Your task to perform on an android device: turn off translation in the chrome app Image 0: 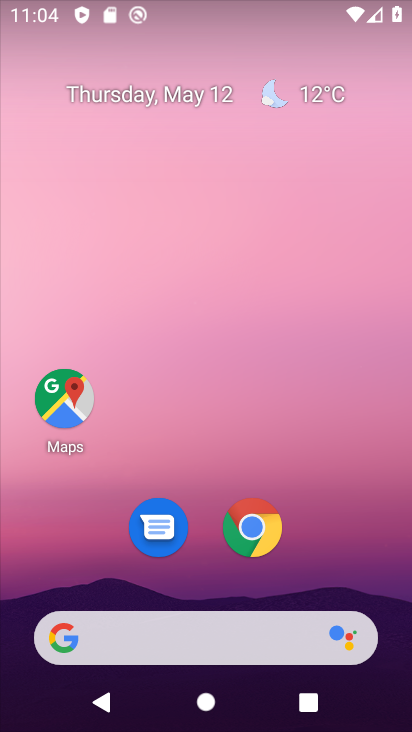
Step 0: click (244, 532)
Your task to perform on an android device: turn off translation in the chrome app Image 1: 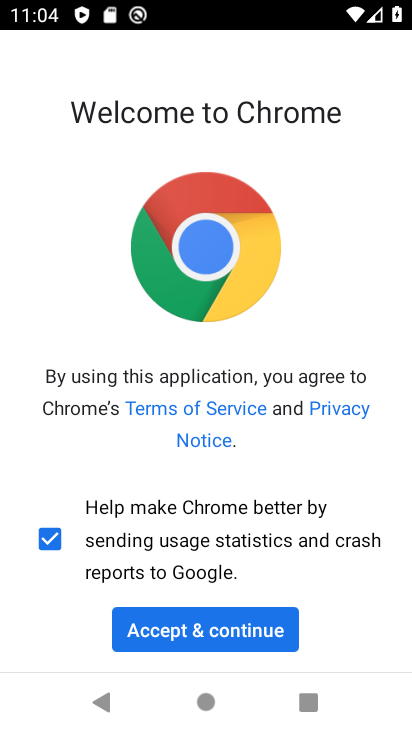
Step 1: click (163, 626)
Your task to perform on an android device: turn off translation in the chrome app Image 2: 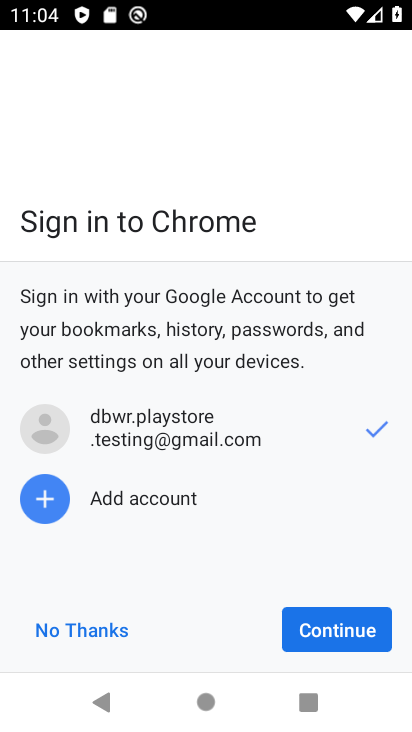
Step 2: click (51, 632)
Your task to perform on an android device: turn off translation in the chrome app Image 3: 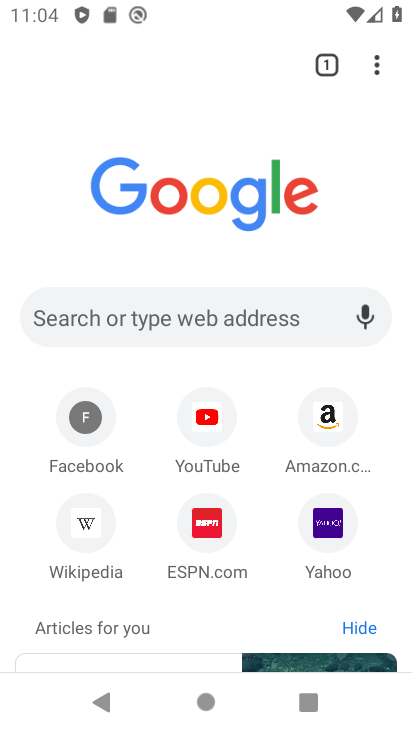
Step 3: click (367, 60)
Your task to perform on an android device: turn off translation in the chrome app Image 4: 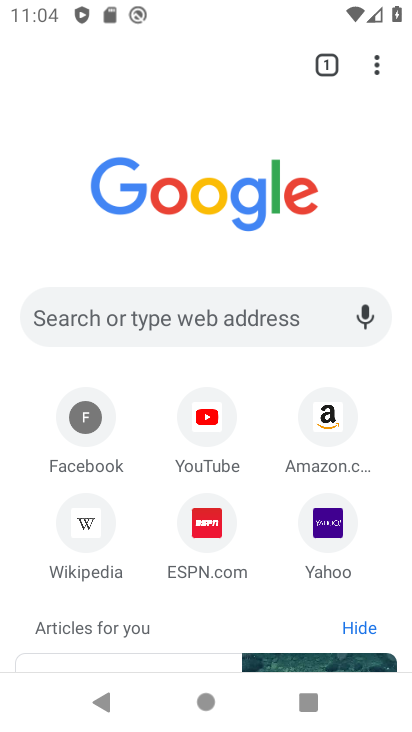
Step 4: click (376, 63)
Your task to perform on an android device: turn off translation in the chrome app Image 5: 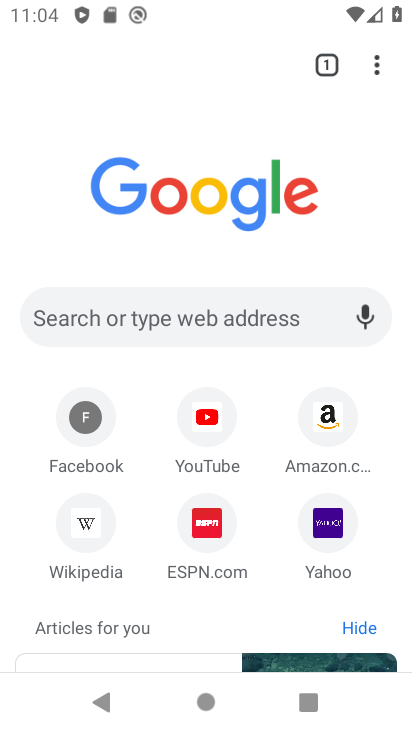
Step 5: click (368, 71)
Your task to perform on an android device: turn off translation in the chrome app Image 6: 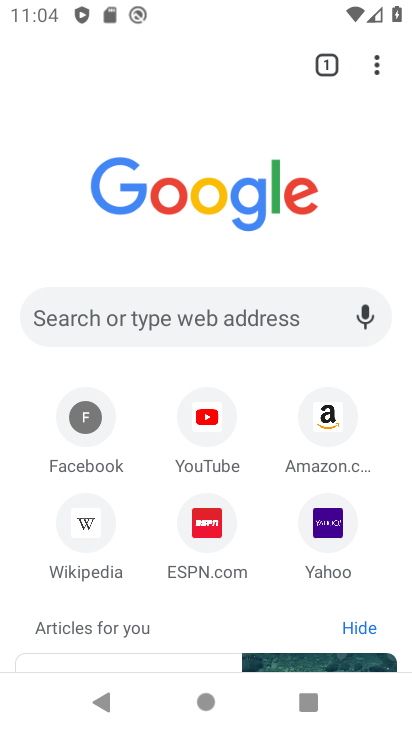
Step 6: click (378, 60)
Your task to perform on an android device: turn off translation in the chrome app Image 7: 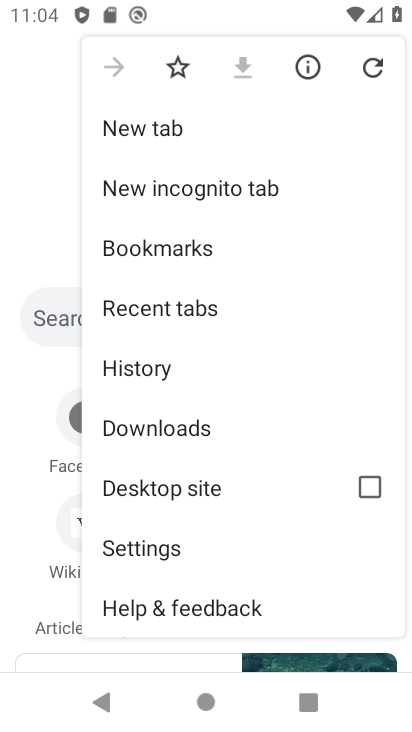
Step 7: click (166, 540)
Your task to perform on an android device: turn off translation in the chrome app Image 8: 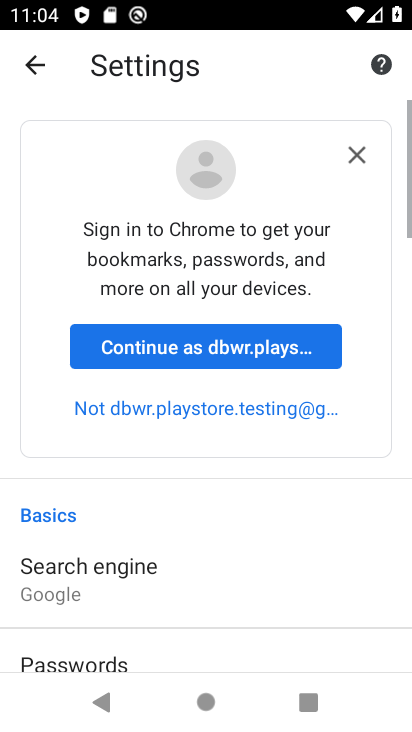
Step 8: drag from (10, 607) to (341, 144)
Your task to perform on an android device: turn off translation in the chrome app Image 9: 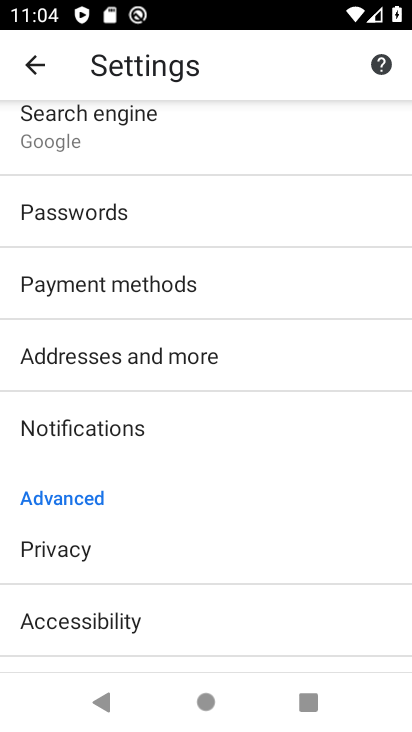
Step 9: drag from (16, 654) to (281, 257)
Your task to perform on an android device: turn off translation in the chrome app Image 10: 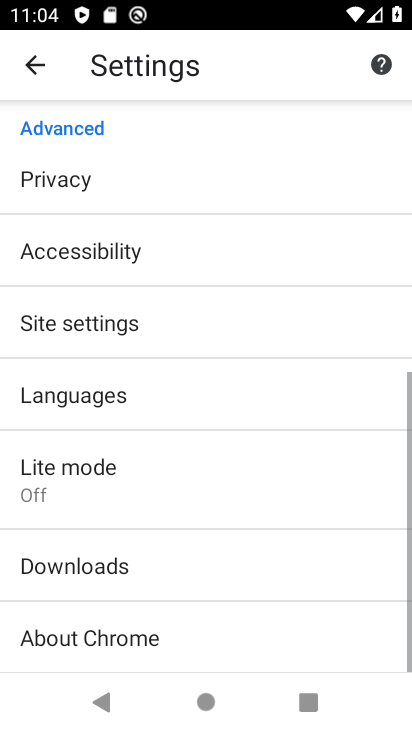
Step 10: click (118, 317)
Your task to perform on an android device: turn off translation in the chrome app Image 11: 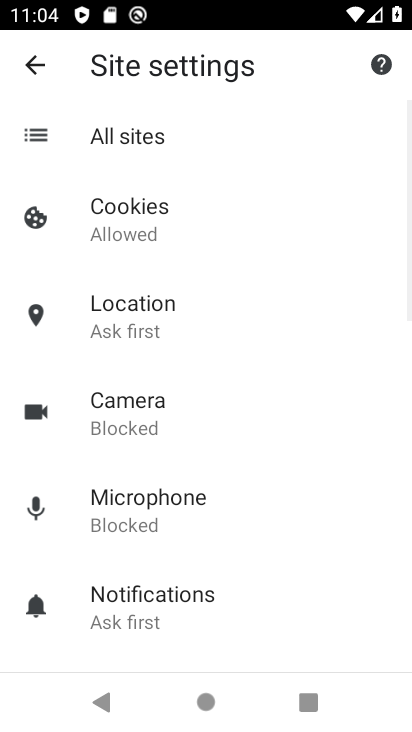
Step 11: press back button
Your task to perform on an android device: turn off translation in the chrome app Image 12: 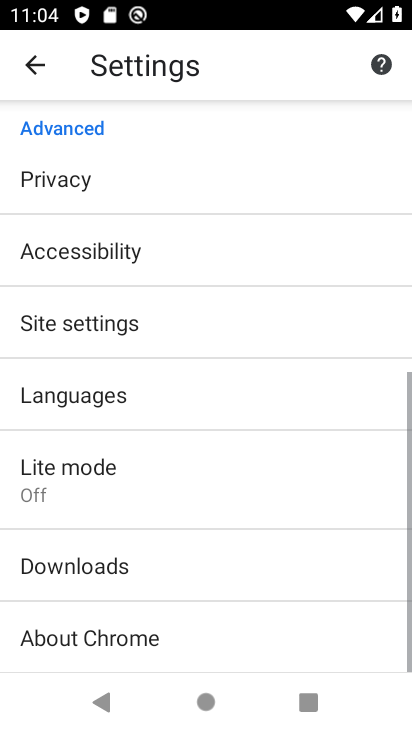
Step 12: drag from (46, 618) to (241, 297)
Your task to perform on an android device: turn off translation in the chrome app Image 13: 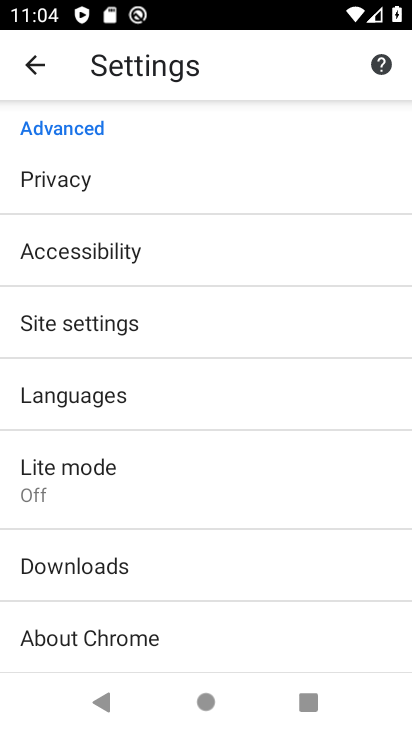
Step 13: click (171, 375)
Your task to perform on an android device: turn off translation in the chrome app Image 14: 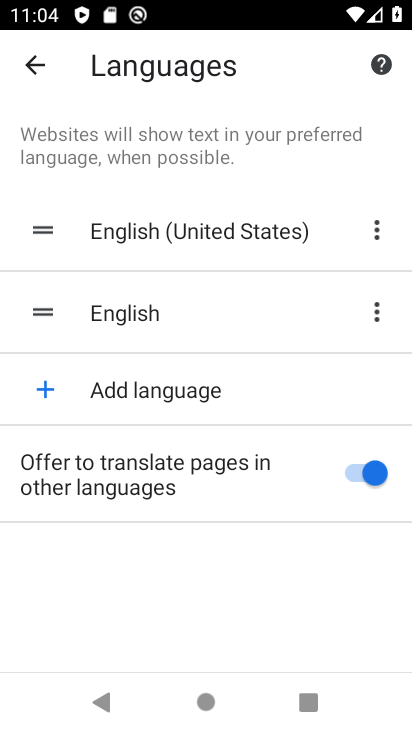
Step 14: click (386, 483)
Your task to perform on an android device: turn off translation in the chrome app Image 15: 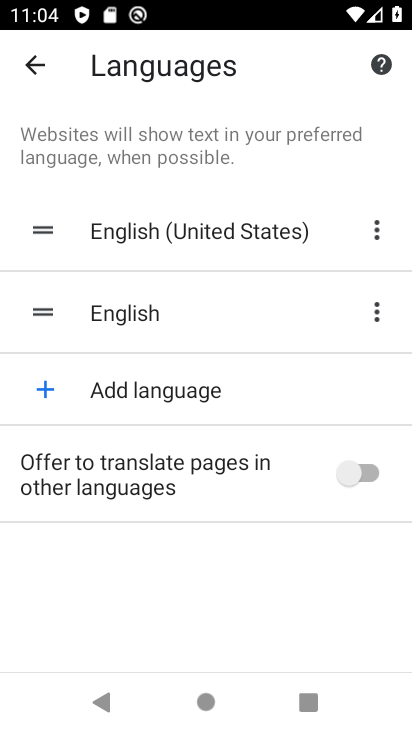
Step 15: task complete